Your task to perform on an android device: remove spam from my inbox in the gmail app Image 0: 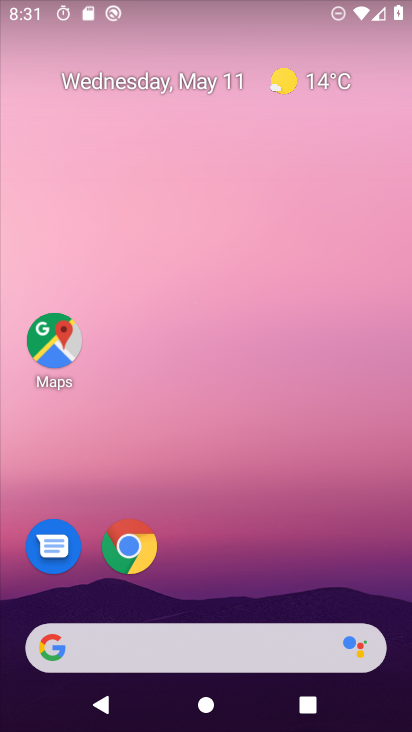
Step 0: drag from (197, 671) to (196, 77)
Your task to perform on an android device: remove spam from my inbox in the gmail app Image 1: 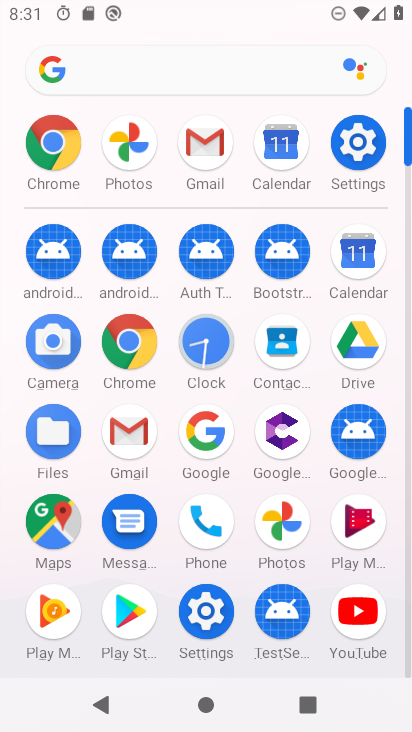
Step 1: click (142, 419)
Your task to perform on an android device: remove spam from my inbox in the gmail app Image 2: 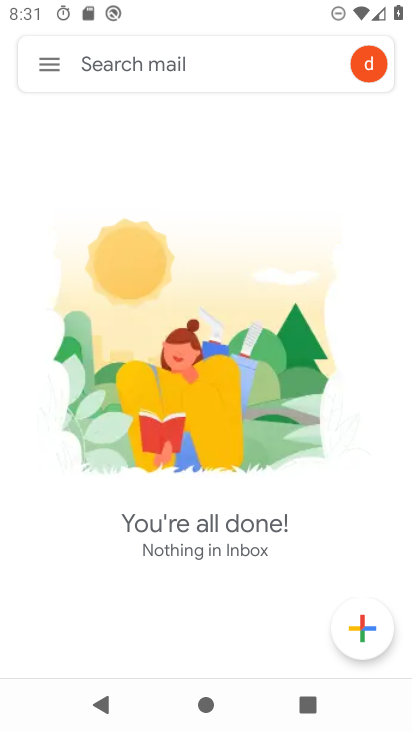
Step 2: click (50, 63)
Your task to perform on an android device: remove spam from my inbox in the gmail app Image 3: 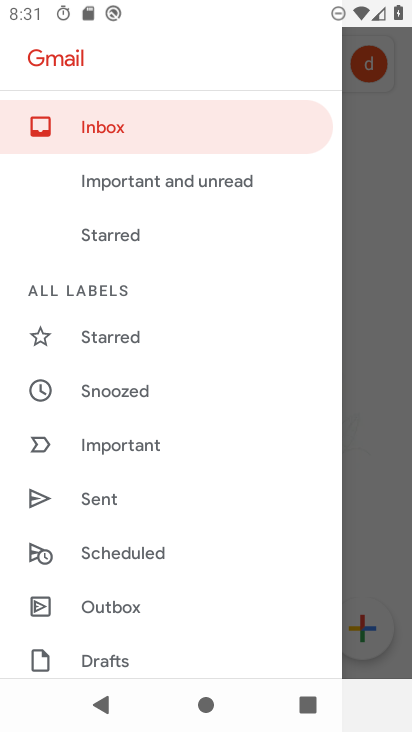
Step 3: drag from (119, 604) to (67, 295)
Your task to perform on an android device: remove spam from my inbox in the gmail app Image 4: 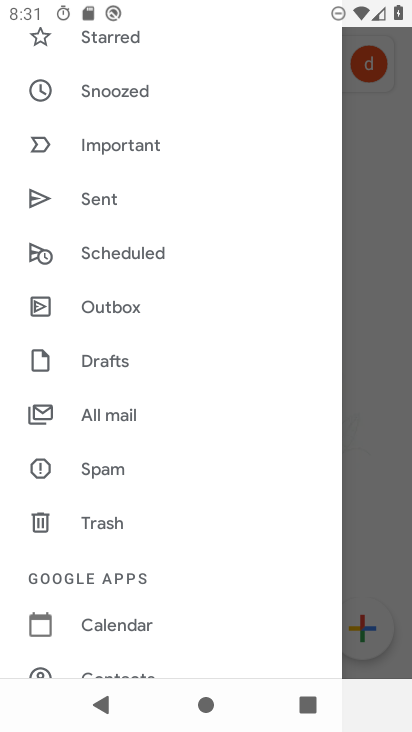
Step 4: click (128, 458)
Your task to perform on an android device: remove spam from my inbox in the gmail app Image 5: 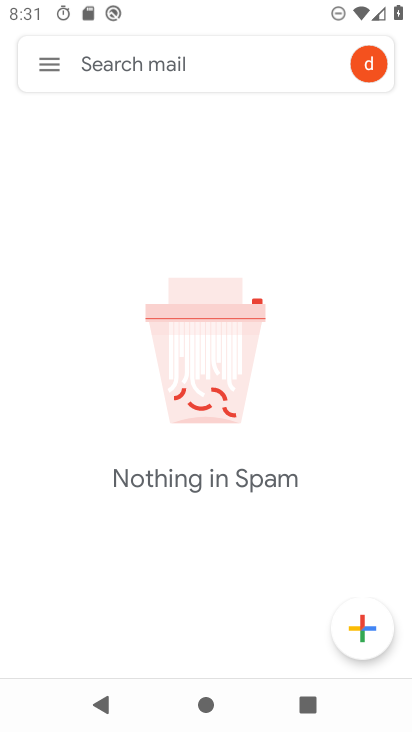
Step 5: task complete